Your task to perform on an android device: Go to Android settings Image 0: 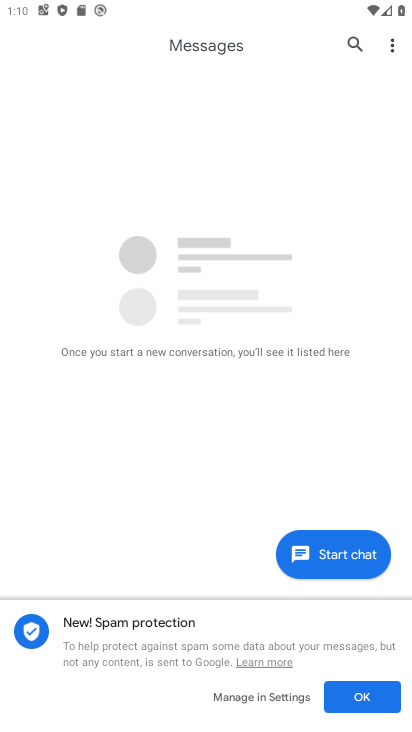
Step 0: press home button
Your task to perform on an android device: Go to Android settings Image 1: 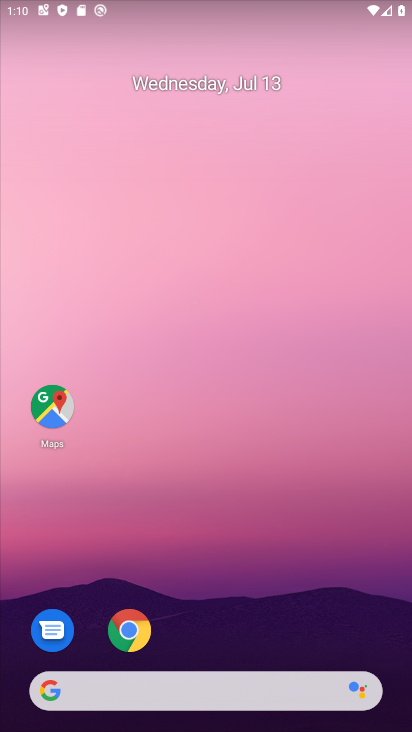
Step 1: drag from (322, 635) to (327, 97)
Your task to perform on an android device: Go to Android settings Image 2: 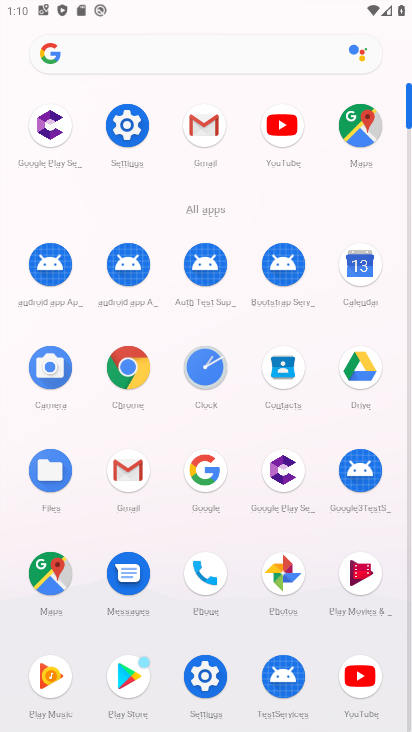
Step 2: click (129, 134)
Your task to perform on an android device: Go to Android settings Image 3: 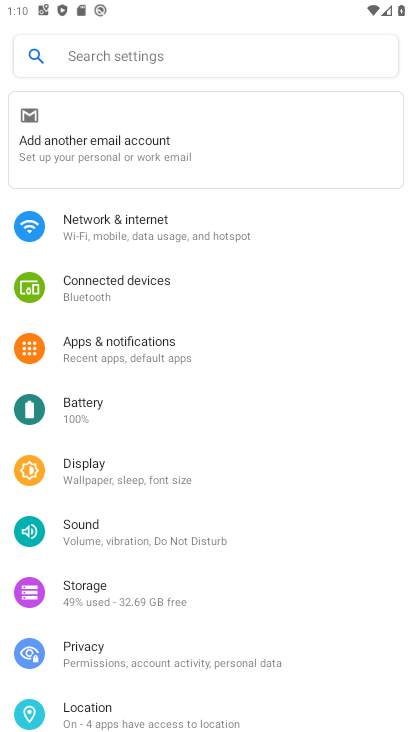
Step 3: drag from (315, 445) to (325, 290)
Your task to perform on an android device: Go to Android settings Image 4: 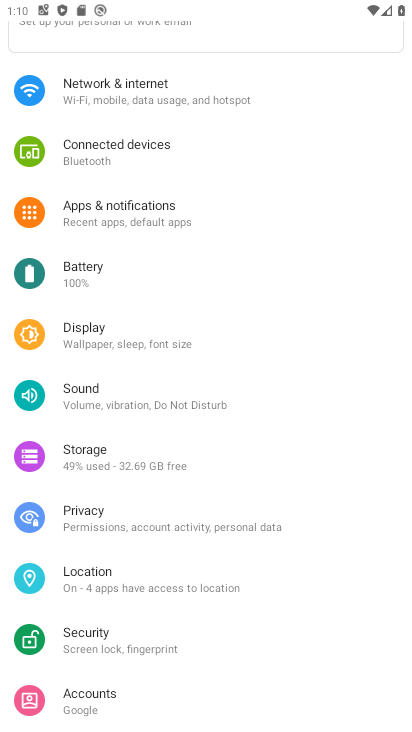
Step 4: drag from (347, 471) to (354, 224)
Your task to perform on an android device: Go to Android settings Image 5: 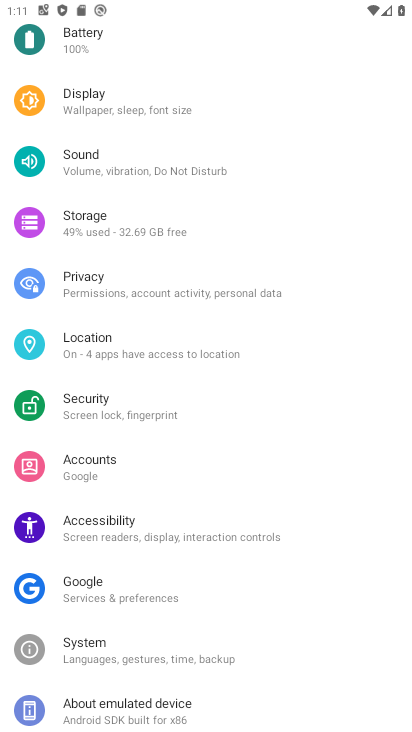
Step 5: drag from (346, 485) to (346, 321)
Your task to perform on an android device: Go to Android settings Image 6: 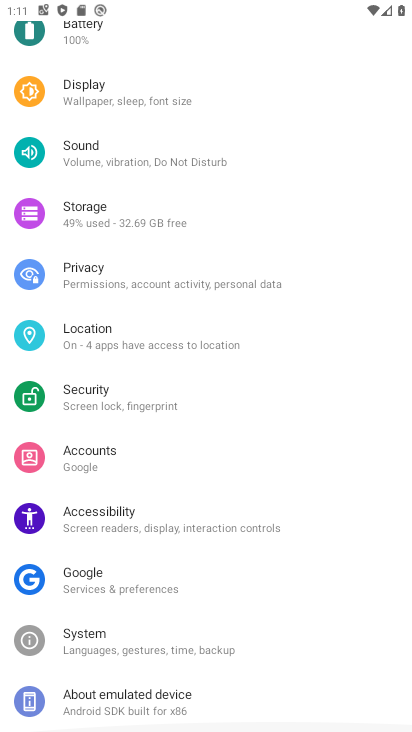
Step 6: drag from (342, 245) to (339, 376)
Your task to perform on an android device: Go to Android settings Image 7: 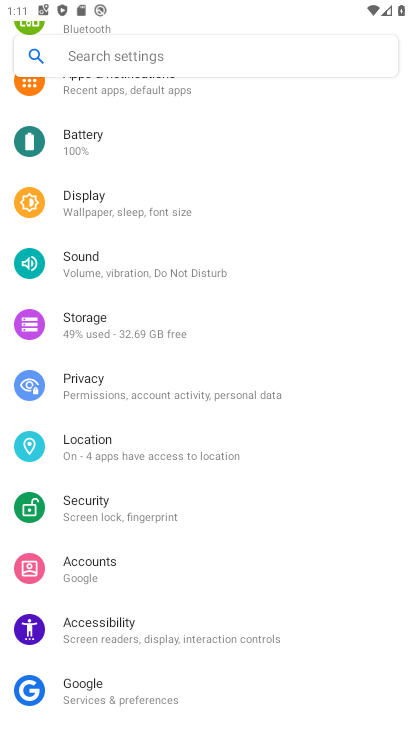
Step 7: drag from (345, 234) to (360, 503)
Your task to perform on an android device: Go to Android settings Image 8: 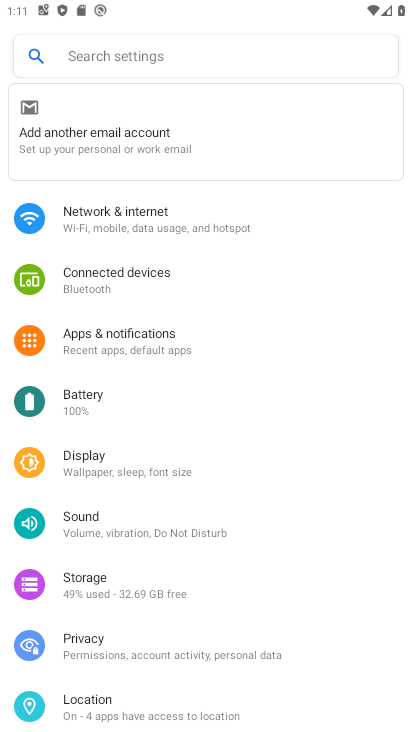
Step 8: drag from (341, 503) to (344, 267)
Your task to perform on an android device: Go to Android settings Image 9: 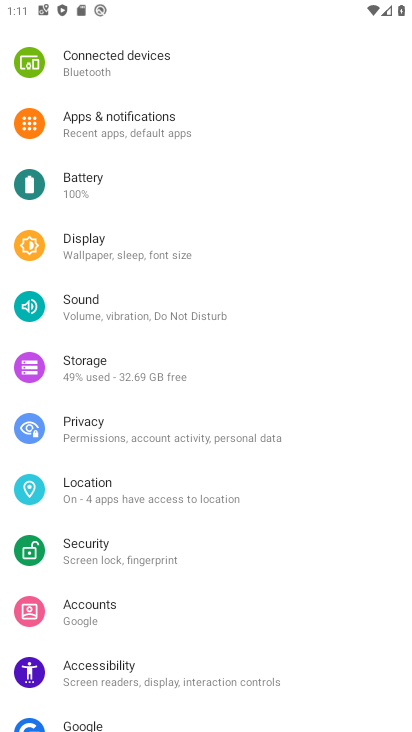
Step 9: drag from (329, 518) to (331, 283)
Your task to perform on an android device: Go to Android settings Image 10: 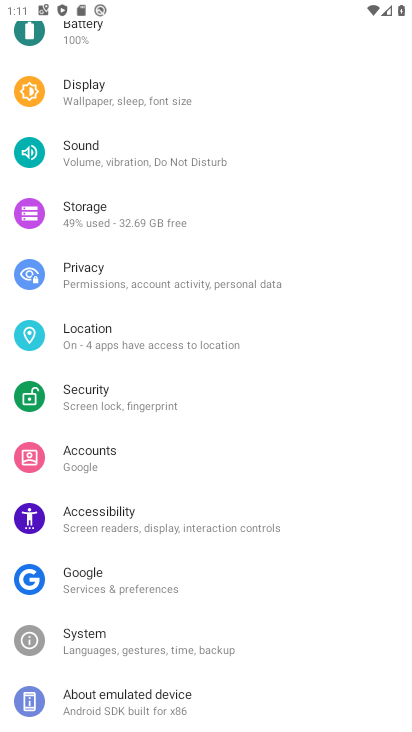
Step 10: click (210, 649)
Your task to perform on an android device: Go to Android settings Image 11: 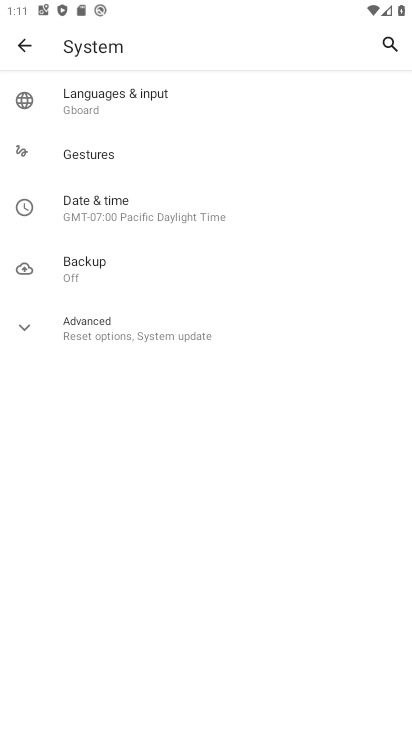
Step 11: click (138, 332)
Your task to perform on an android device: Go to Android settings Image 12: 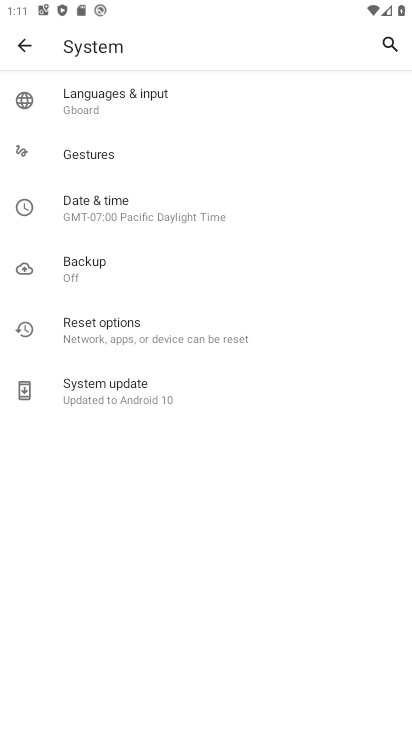
Step 12: task complete